Your task to perform on an android device: Open Chrome and go to the settings page Image 0: 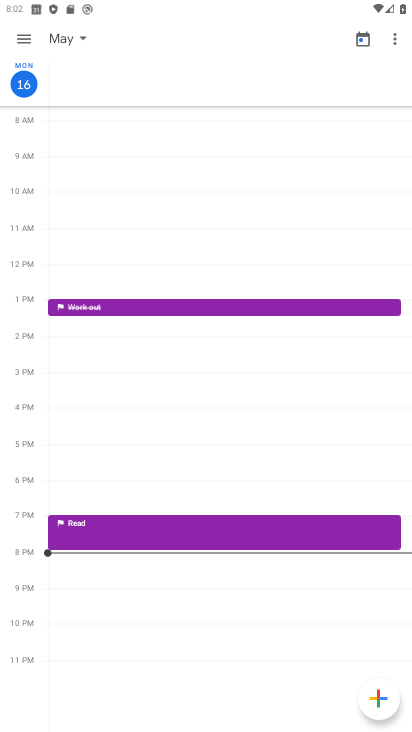
Step 0: press home button
Your task to perform on an android device: Open Chrome and go to the settings page Image 1: 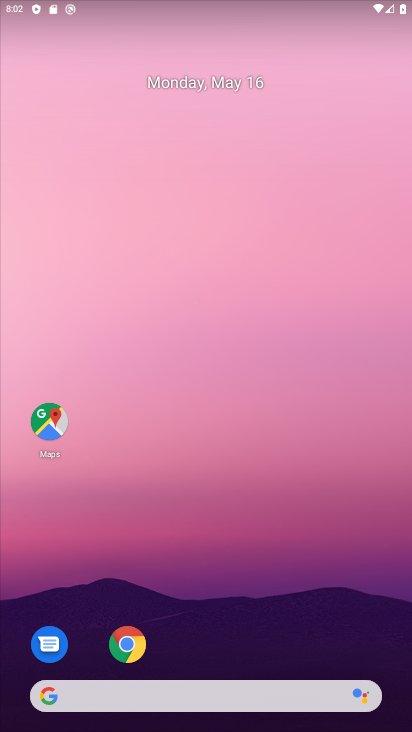
Step 1: click (114, 647)
Your task to perform on an android device: Open Chrome and go to the settings page Image 2: 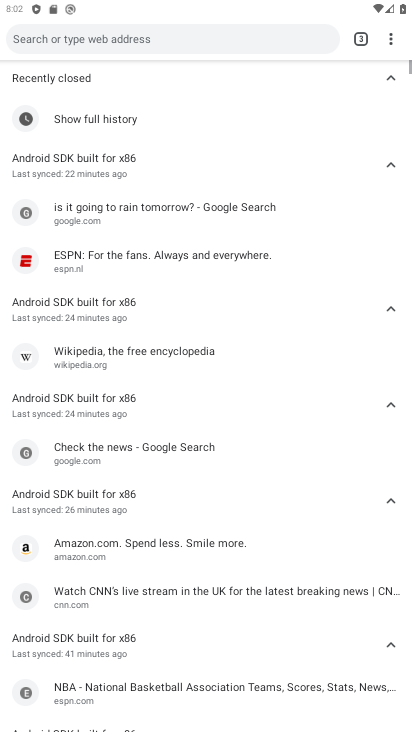
Step 2: click (390, 36)
Your task to perform on an android device: Open Chrome and go to the settings page Image 3: 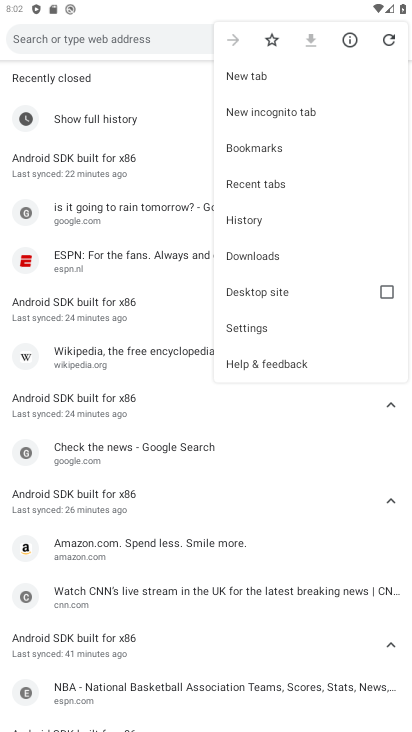
Step 3: click (269, 328)
Your task to perform on an android device: Open Chrome and go to the settings page Image 4: 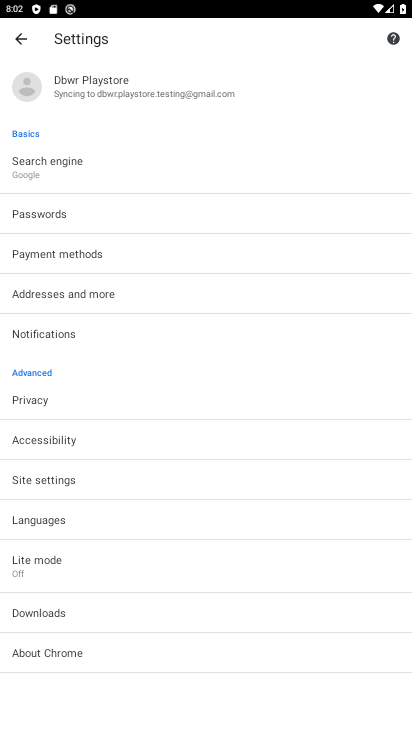
Step 4: task complete